Your task to perform on an android device: What's the weather? Image 0: 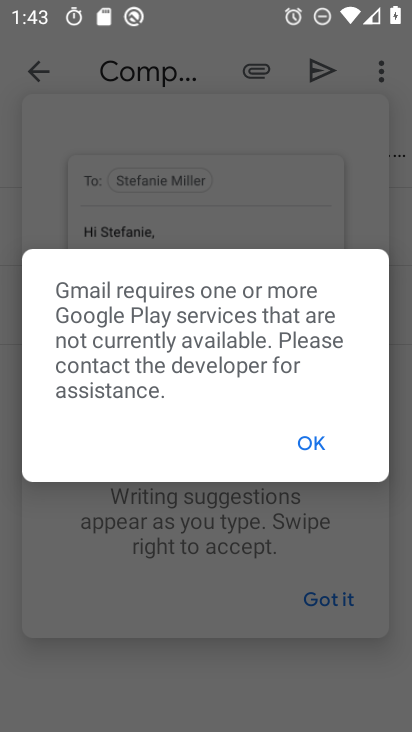
Step 0: press home button
Your task to perform on an android device: What's the weather? Image 1: 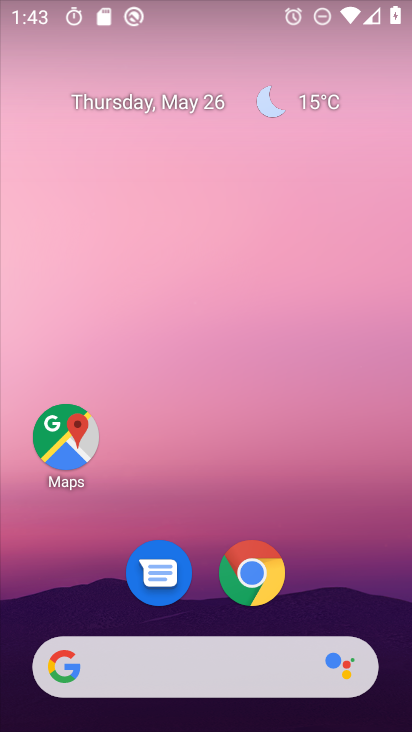
Step 1: click (323, 98)
Your task to perform on an android device: What's the weather? Image 2: 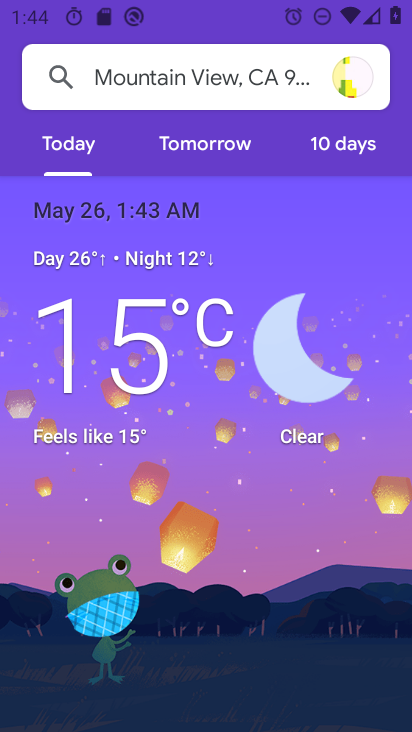
Step 2: task complete